Your task to perform on an android device: change text size in settings app Image 0: 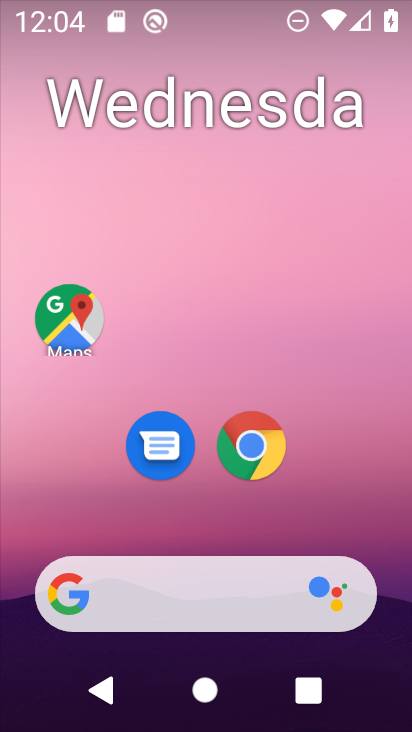
Step 0: drag from (403, 596) to (234, 78)
Your task to perform on an android device: change text size in settings app Image 1: 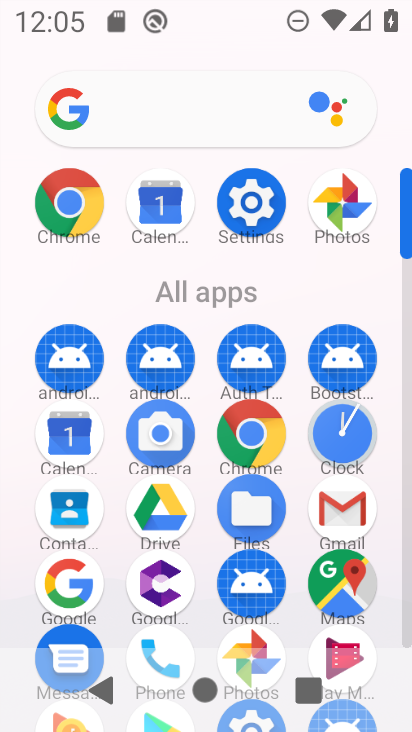
Step 1: click (232, 214)
Your task to perform on an android device: change text size in settings app Image 2: 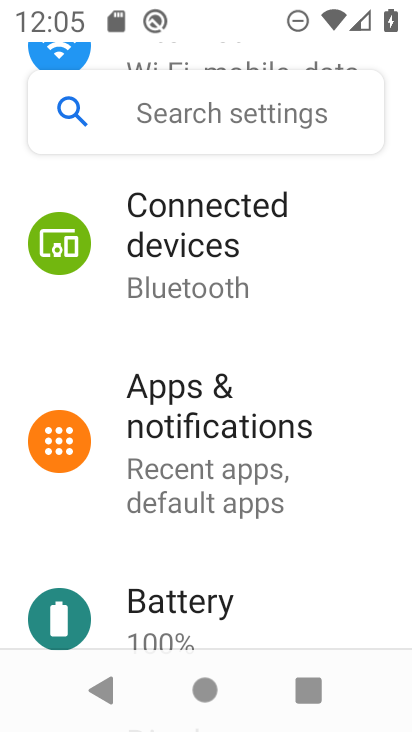
Step 2: drag from (226, 619) to (241, 167)
Your task to perform on an android device: change text size in settings app Image 3: 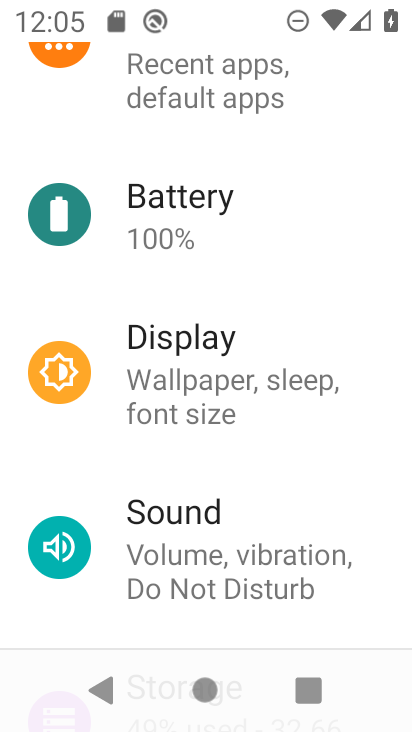
Step 3: click (207, 378)
Your task to perform on an android device: change text size in settings app Image 4: 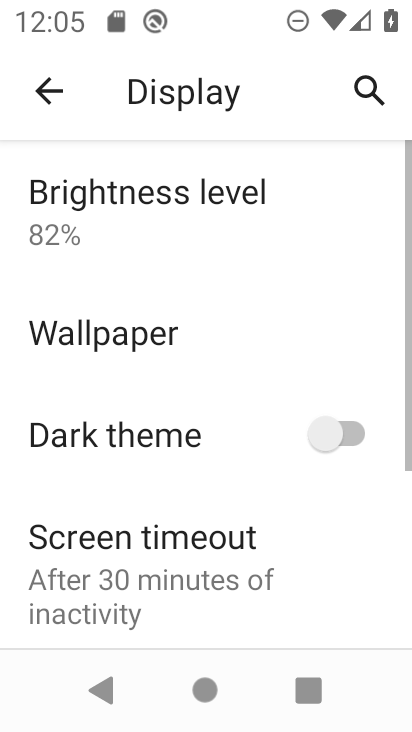
Step 4: drag from (174, 590) to (211, 110)
Your task to perform on an android device: change text size in settings app Image 5: 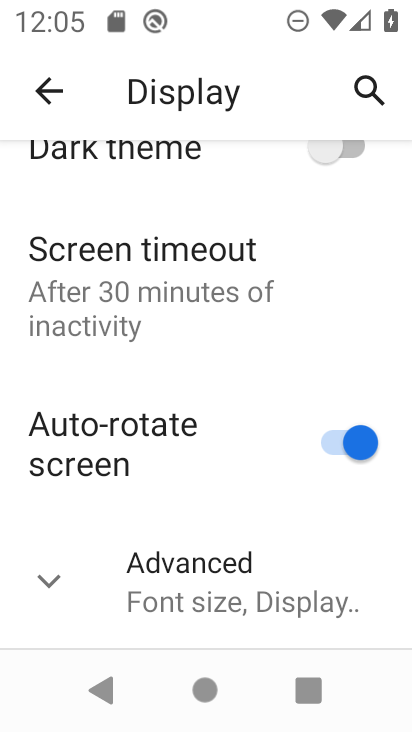
Step 5: click (170, 585)
Your task to perform on an android device: change text size in settings app Image 6: 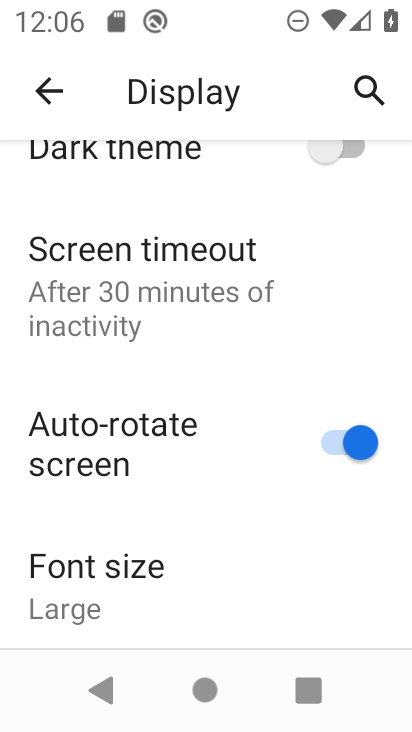
Step 6: click (151, 590)
Your task to perform on an android device: change text size in settings app Image 7: 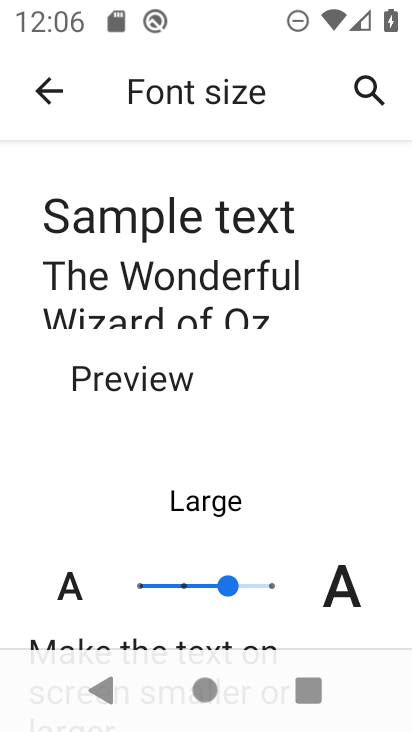
Step 7: click (184, 588)
Your task to perform on an android device: change text size in settings app Image 8: 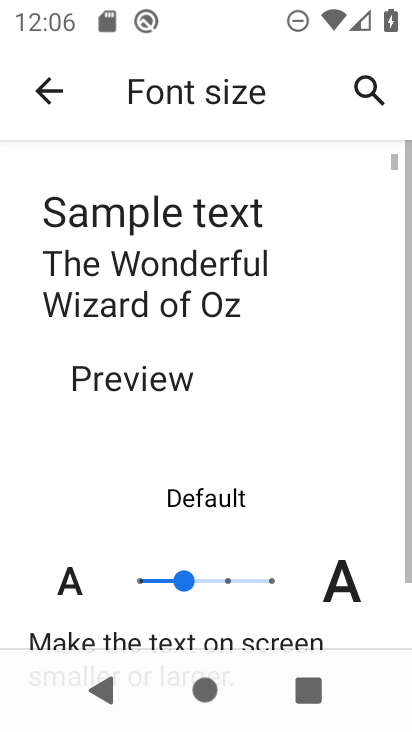
Step 8: task complete